Your task to perform on an android device: turn smart compose on in the gmail app Image 0: 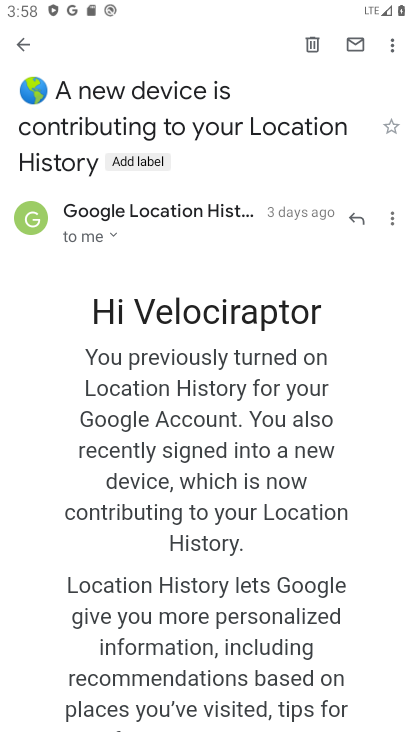
Step 0: press back button
Your task to perform on an android device: turn smart compose on in the gmail app Image 1: 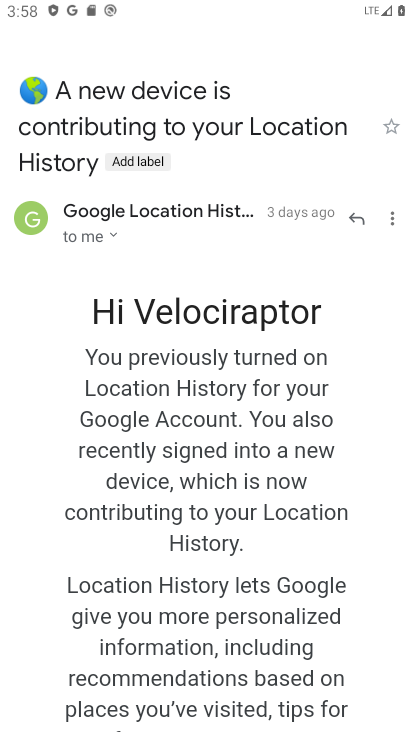
Step 1: press back button
Your task to perform on an android device: turn smart compose on in the gmail app Image 2: 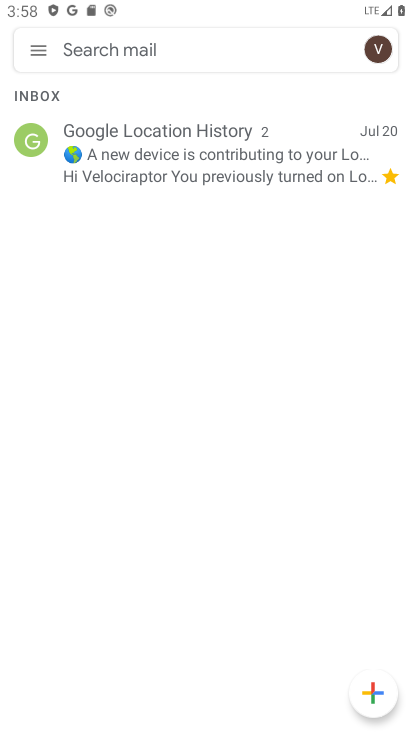
Step 2: press home button
Your task to perform on an android device: turn smart compose on in the gmail app Image 3: 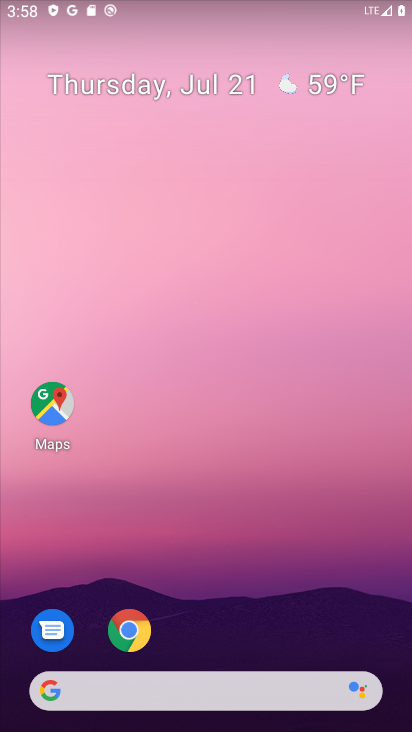
Step 3: drag from (240, 552) to (179, 132)
Your task to perform on an android device: turn smart compose on in the gmail app Image 4: 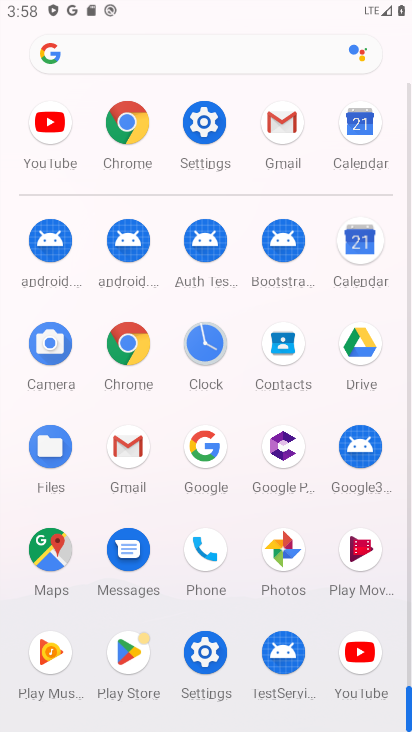
Step 4: click (114, 448)
Your task to perform on an android device: turn smart compose on in the gmail app Image 5: 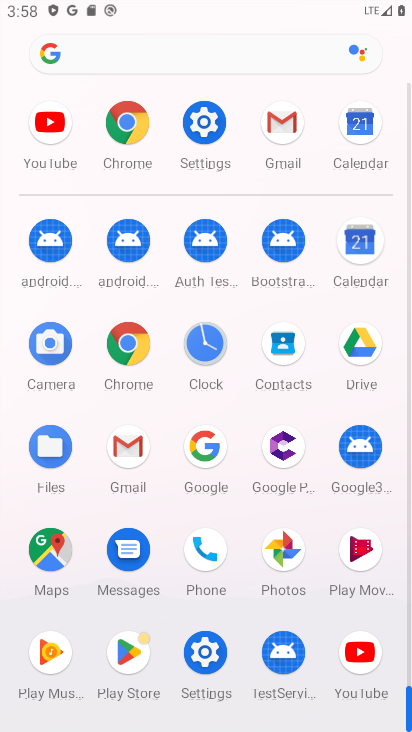
Step 5: click (114, 448)
Your task to perform on an android device: turn smart compose on in the gmail app Image 6: 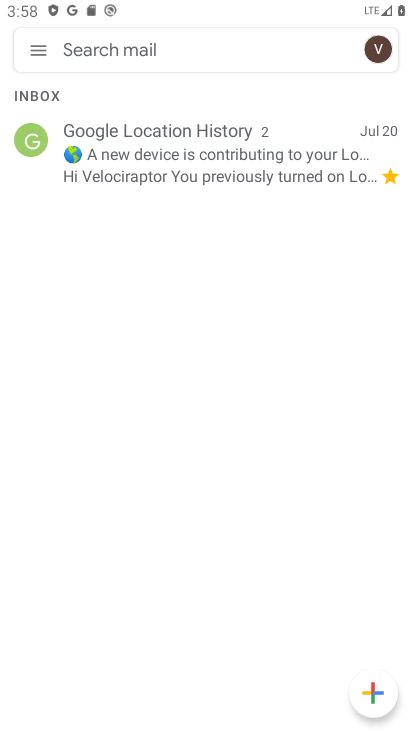
Step 6: click (57, 54)
Your task to perform on an android device: turn smart compose on in the gmail app Image 7: 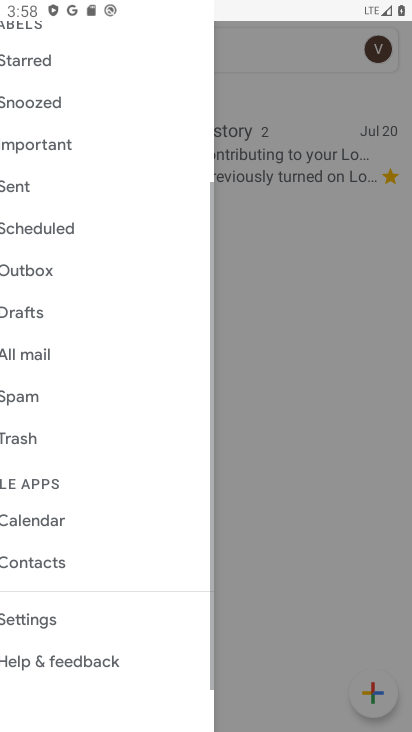
Step 7: click (40, 41)
Your task to perform on an android device: turn smart compose on in the gmail app Image 8: 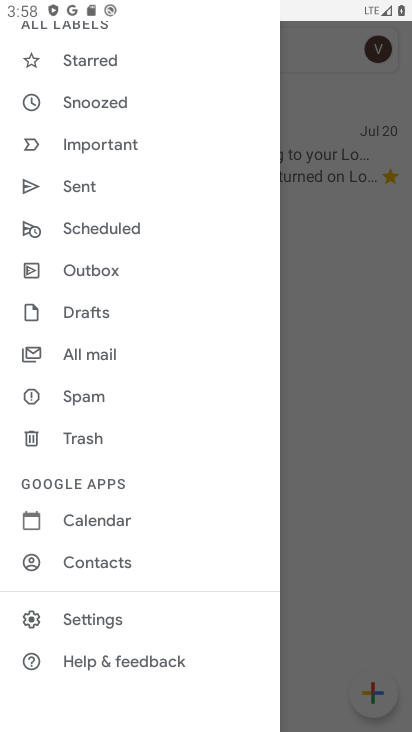
Step 8: click (82, 626)
Your task to perform on an android device: turn smart compose on in the gmail app Image 9: 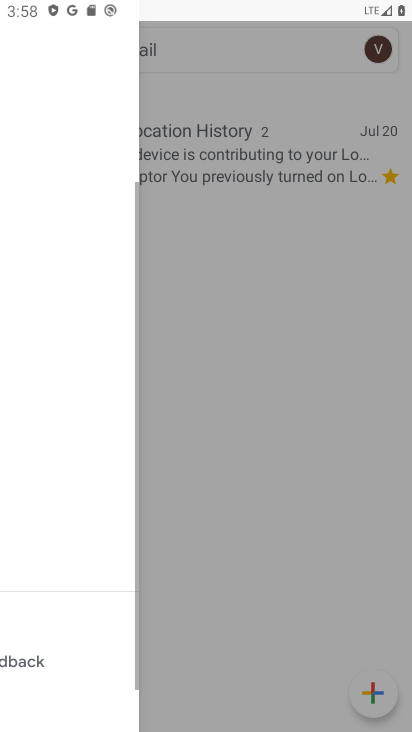
Step 9: click (83, 625)
Your task to perform on an android device: turn smart compose on in the gmail app Image 10: 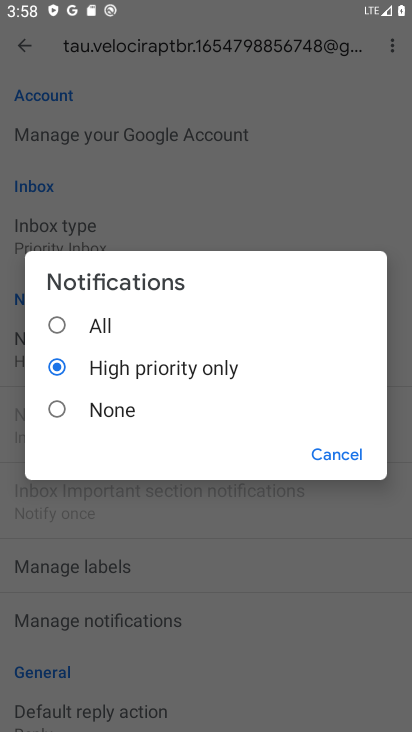
Step 10: click (328, 450)
Your task to perform on an android device: turn smart compose on in the gmail app Image 11: 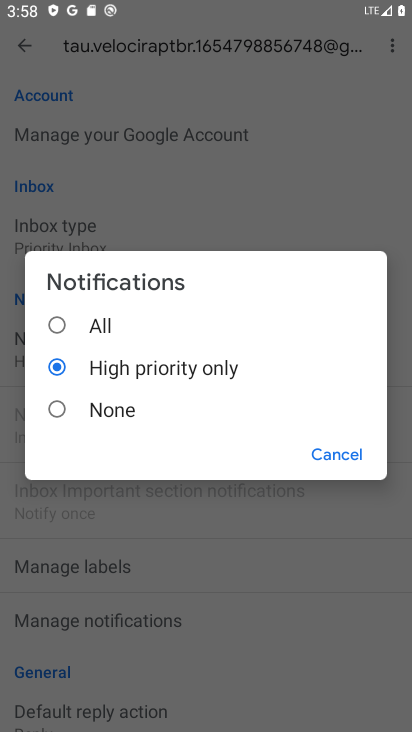
Step 11: click (329, 451)
Your task to perform on an android device: turn smart compose on in the gmail app Image 12: 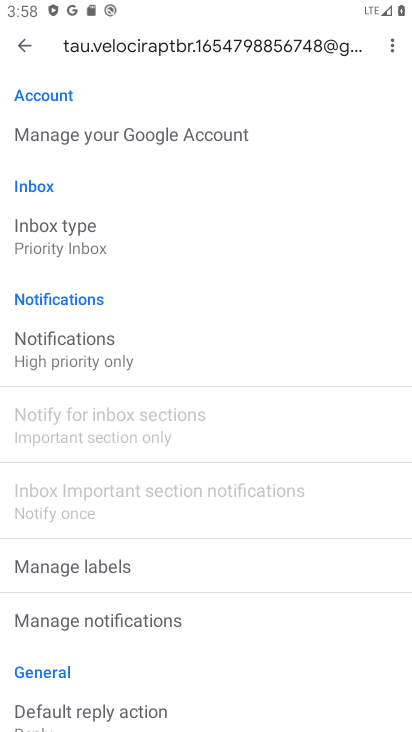
Step 12: task complete